Your task to perform on an android device: Clear all items from cart on walmart. Search for bose quietcomfort 35 on walmart, select the first entry, add it to the cart, then select checkout. Image 0: 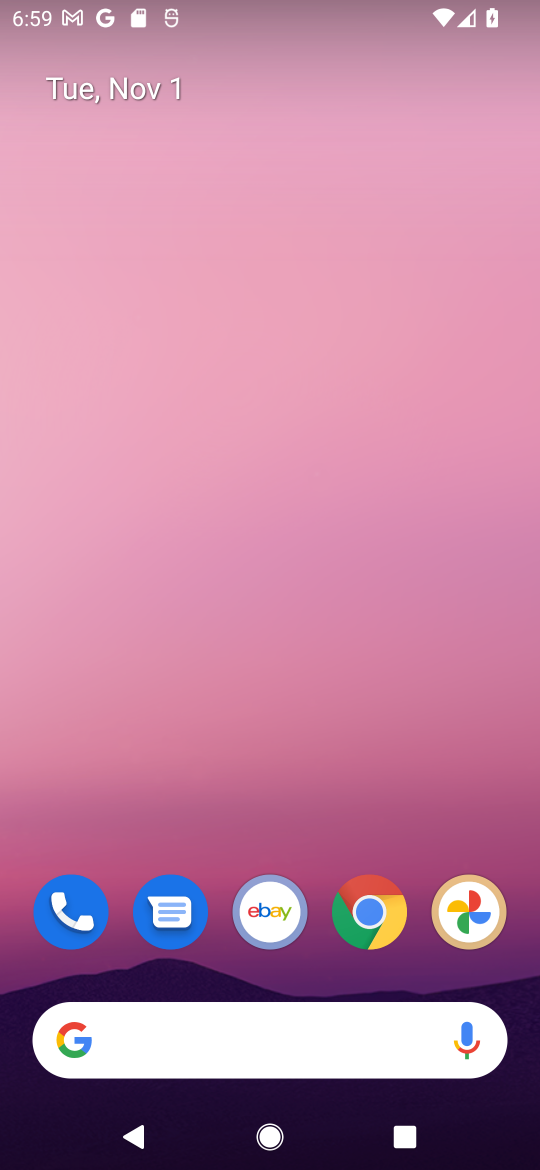
Step 0: click (60, 1040)
Your task to perform on an android device: Clear all items from cart on walmart. Search for bose quietcomfort 35 on walmart, select the first entry, add it to the cart, then select checkout. Image 1: 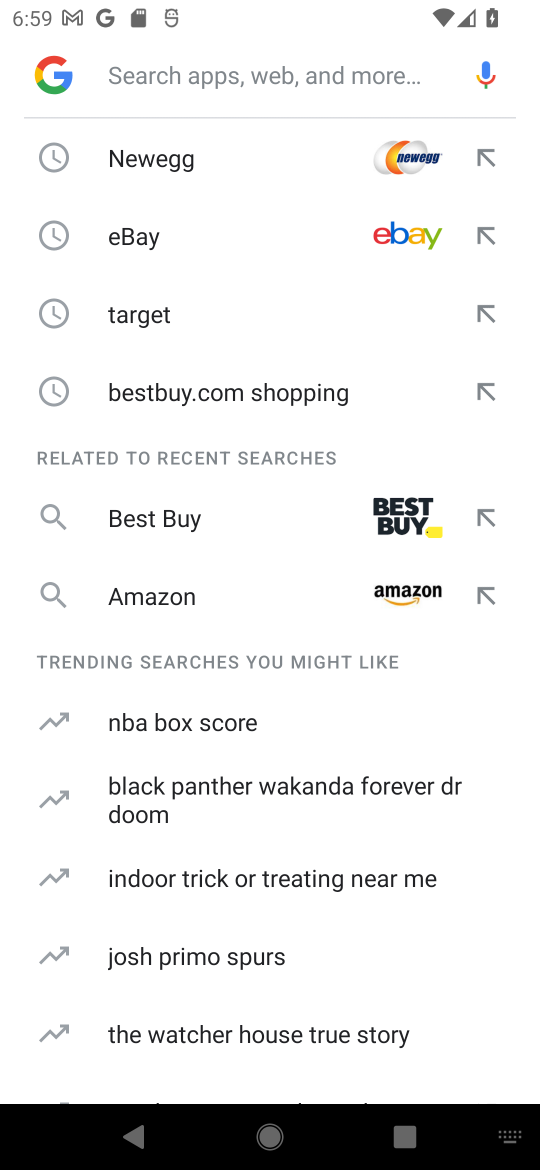
Step 1: click (223, 74)
Your task to perform on an android device: Clear all items from cart on walmart. Search for bose quietcomfort 35 on walmart, select the first entry, add it to the cart, then select checkout. Image 2: 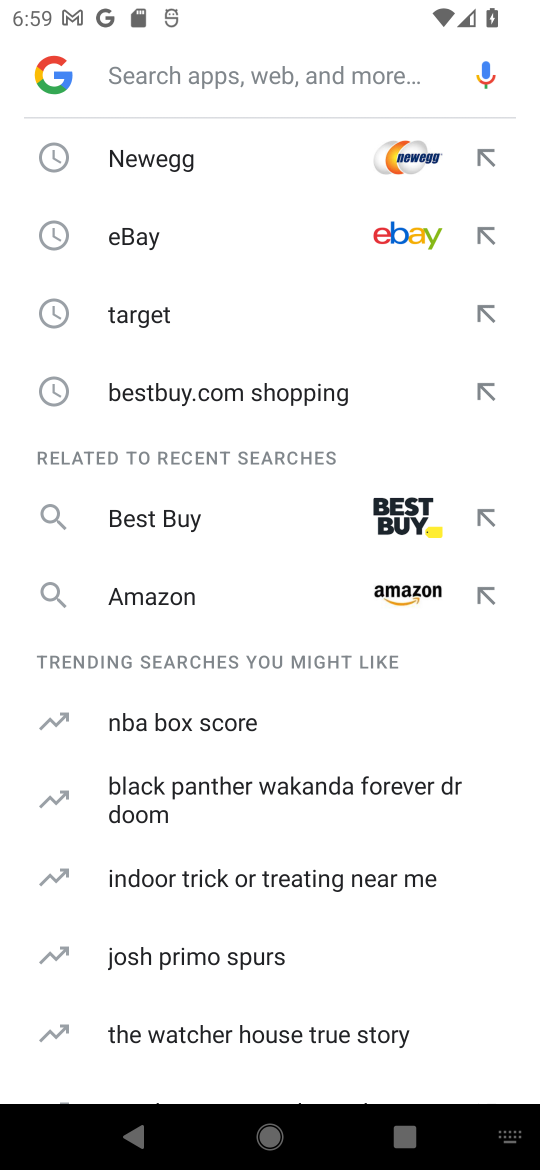
Step 2: click (237, 75)
Your task to perform on an android device: Clear all items from cart on walmart. Search for bose quietcomfort 35 on walmart, select the first entry, add it to the cart, then select checkout. Image 3: 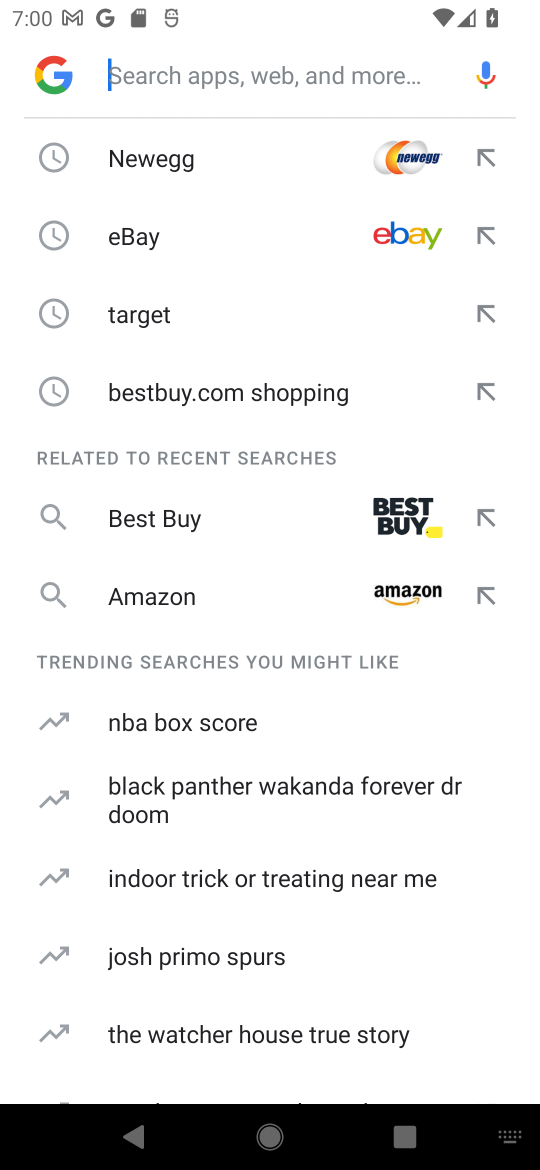
Step 3: type "walmart"
Your task to perform on an android device: Clear all items from cart on walmart. Search for bose quietcomfort 35 on walmart, select the first entry, add it to the cart, then select checkout. Image 4: 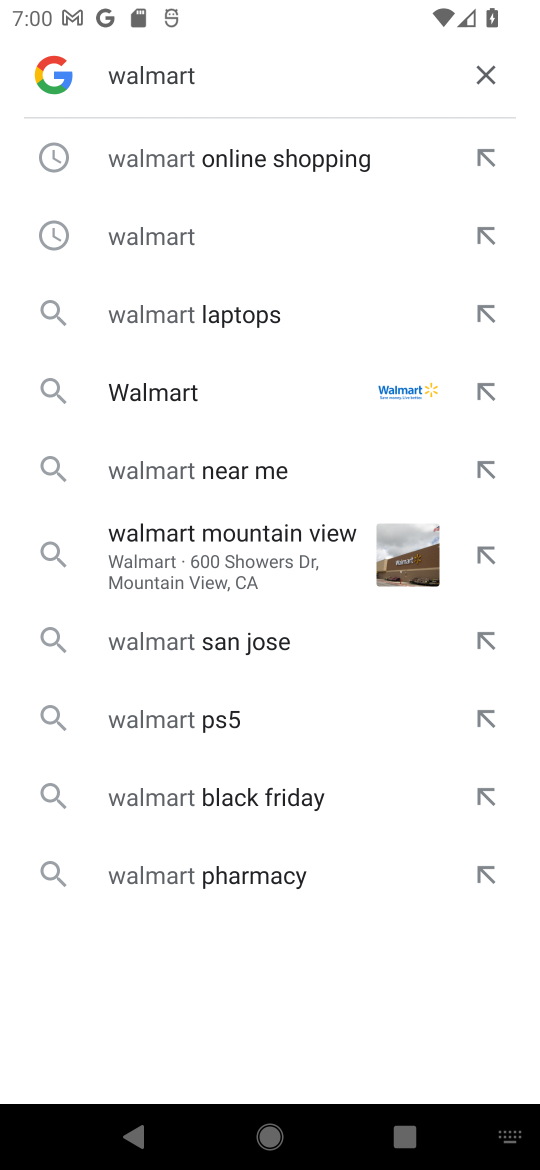
Step 4: click (164, 249)
Your task to perform on an android device: Clear all items from cart on walmart. Search for bose quietcomfort 35 on walmart, select the first entry, add it to the cart, then select checkout. Image 5: 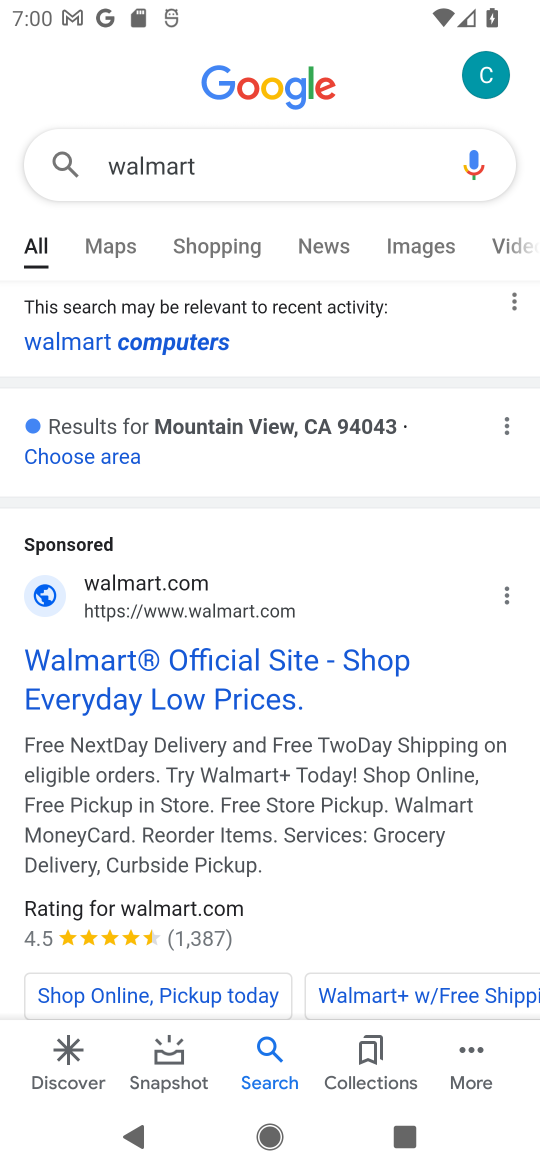
Step 5: click (262, 655)
Your task to perform on an android device: Clear all items from cart on walmart. Search for bose quietcomfort 35 on walmart, select the first entry, add it to the cart, then select checkout. Image 6: 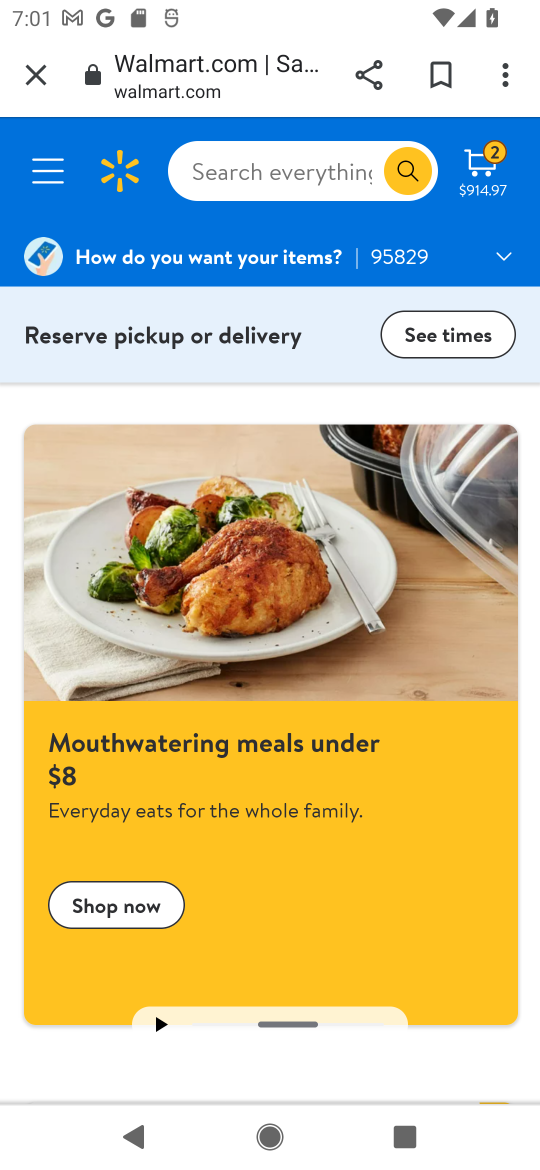
Step 6: click (483, 167)
Your task to perform on an android device: Clear all items from cart on walmart. Search for bose quietcomfort 35 on walmart, select the first entry, add it to the cart, then select checkout. Image 7: 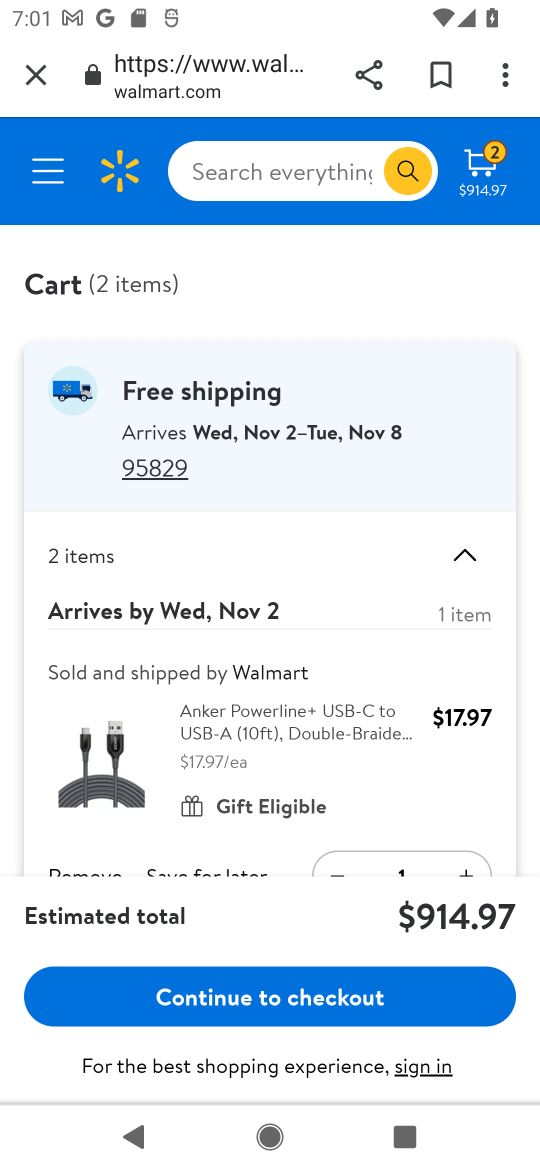
Step 7: click (251, 232)
Your task to perform on an android device: Clear all items from cart on walmart. Search for bose quietcomfort 35 on walmart, select the first entry, add it to the cart, then select checkout. Image 8: 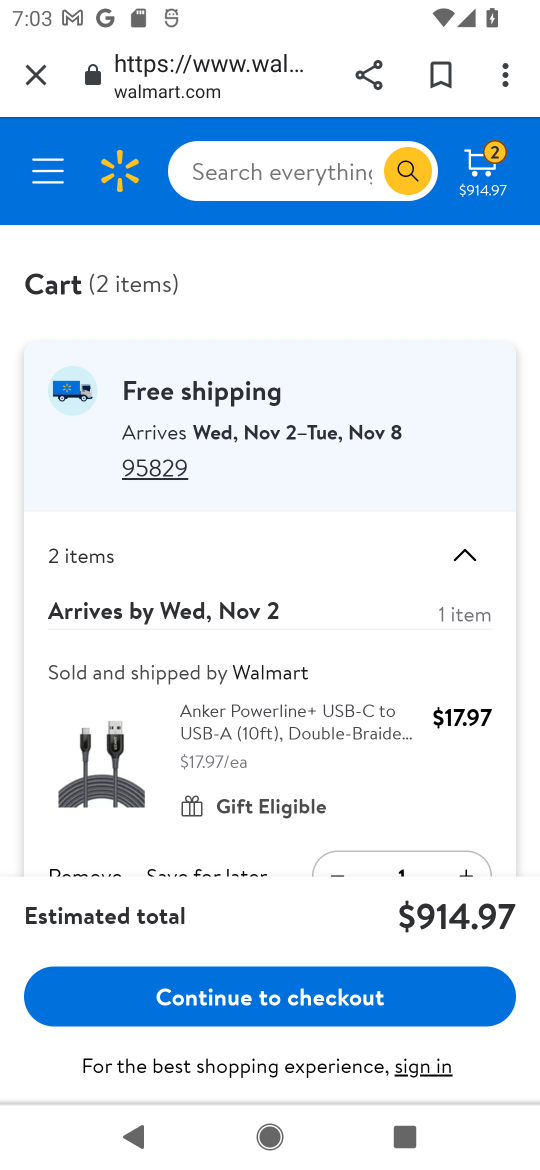
Step 8: drag from (303, 739) to (346, 260)
Your task to perform on an android device: Clear all items from cart on walmart. Search for bose quietcomfort 35 on walmart, select the first entry, add it to the cart, then select checkout. Image 9: 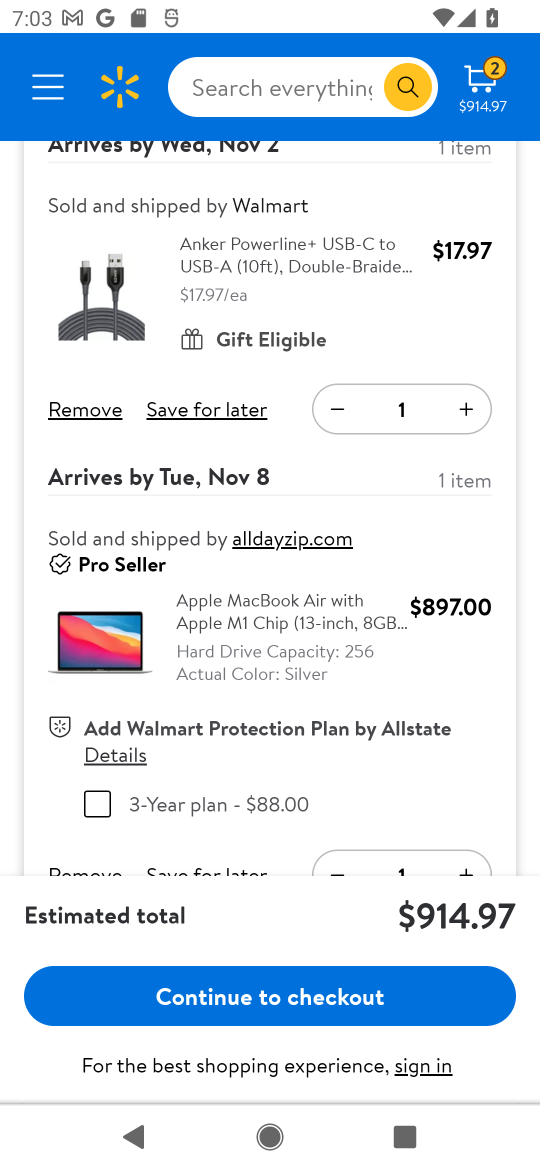
Step 9: click (65, 415)
Your task to perform on an android device: Clear all items from cart on walmart. Search for bose quietcomfort 35 on walmart, select the first entry, add it to the cart, then select checkout. Image 10: 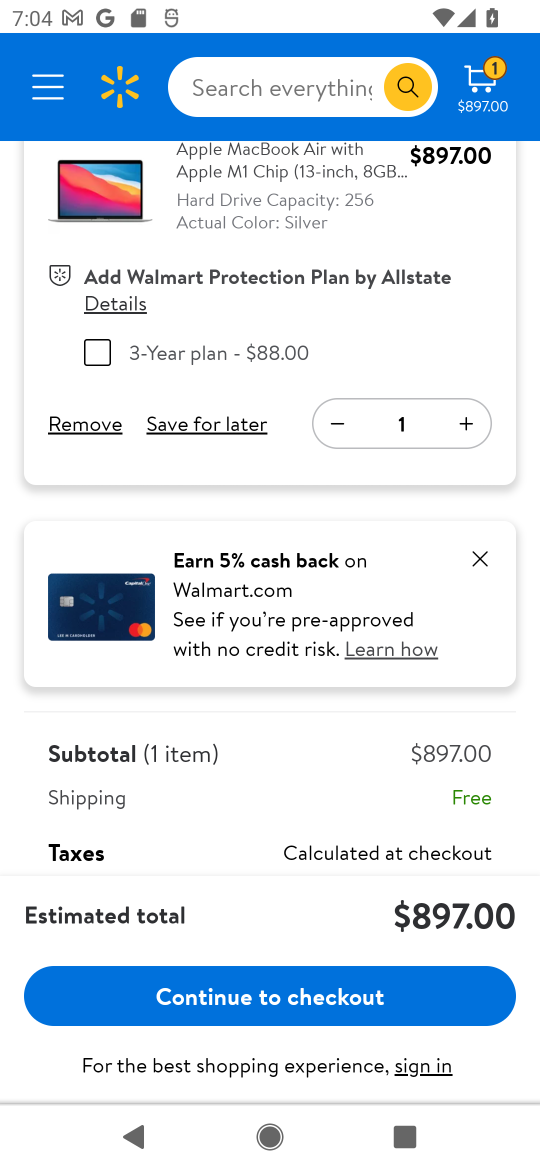
Step 10: click (67, 429)
Your task to perform on an android device: Clear all items from cart on walmart. Search for bose quietcomfort 35 on walmart, select the first entry, add it to the cart, then select checkout. Image 11: 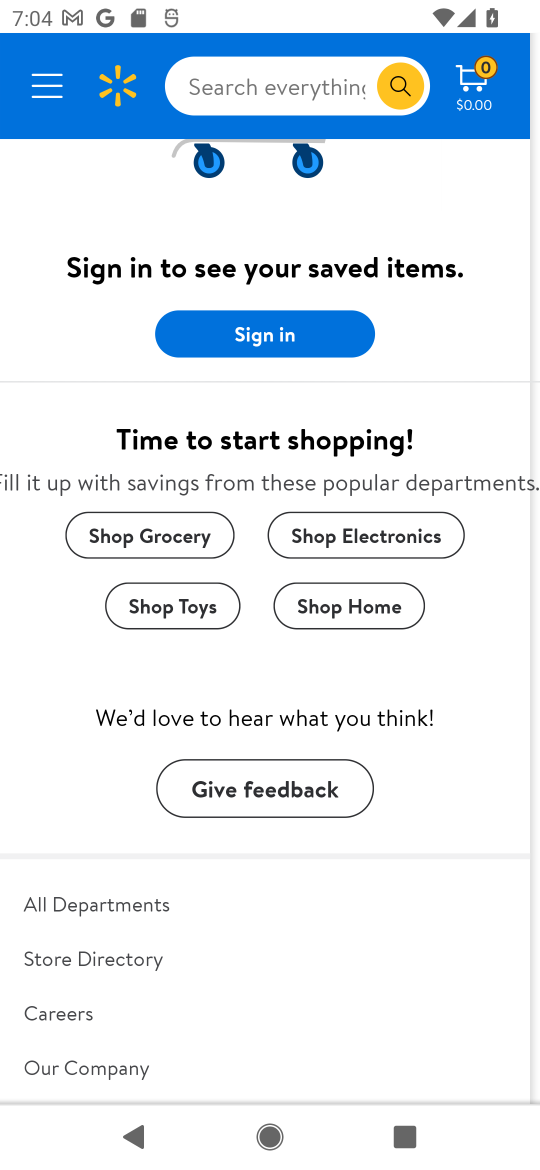
Step 11: type "bose qietcomfort 35"
Your task to perform on an android device: Clear all items from cart on walmart. Search for bose quietcomfort 35 on walmart, select the first entry, add it to the cart, then select checkout. Image 12: 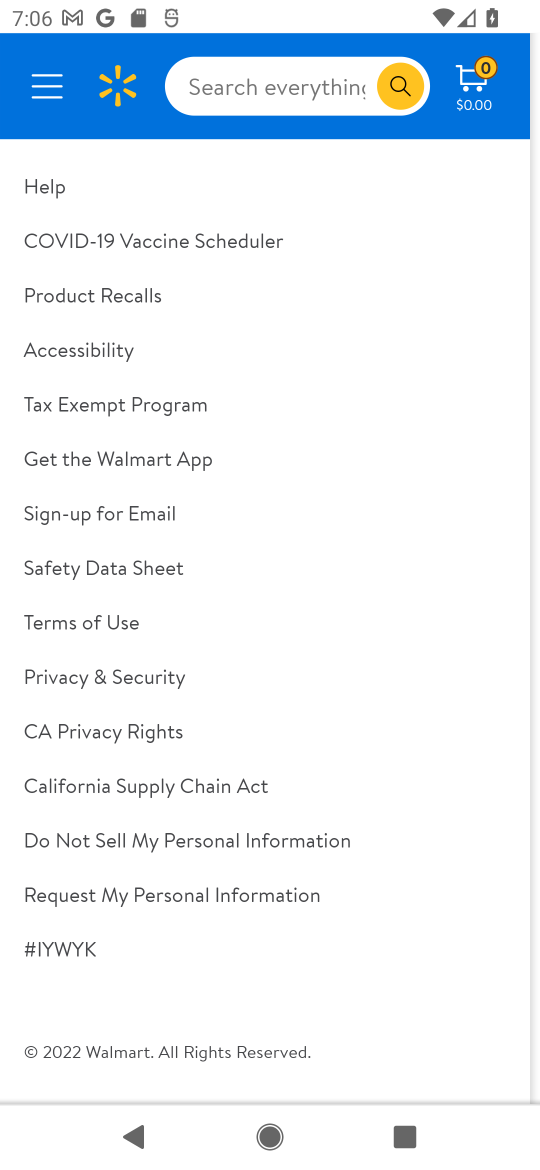
Step 12: task complete